Your task to perform on an android device: Open display settings Image 0: 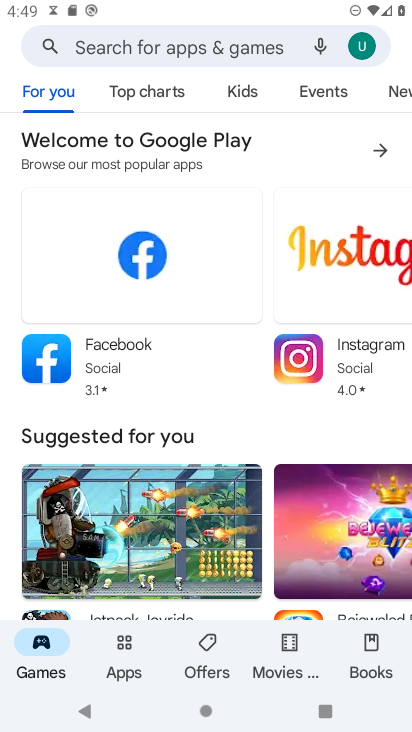
Step 0: press back button
Your task to perform on an android device: Open display settings Image 1: 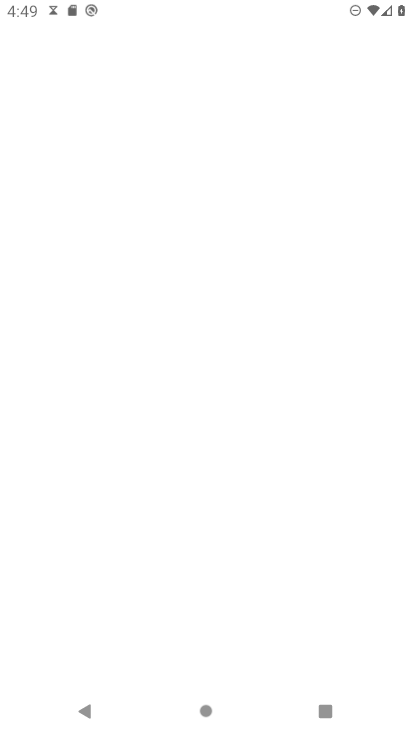
Step 1: press back button
Your task to perform on an android device: Open display settings Image 2: 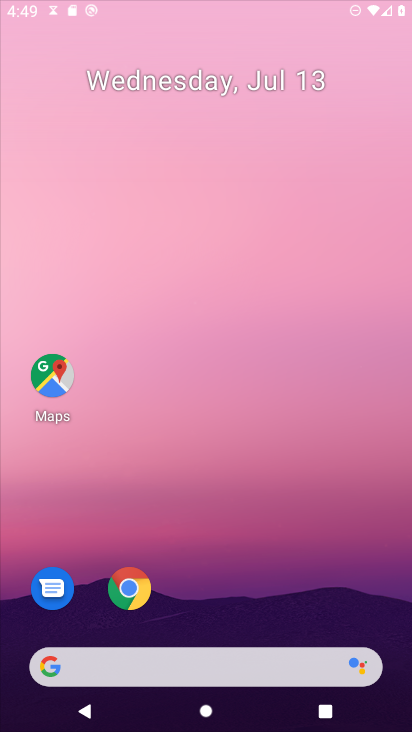
Step 2: press back button
Your task to perform on an android device: Open display settings Image 3: 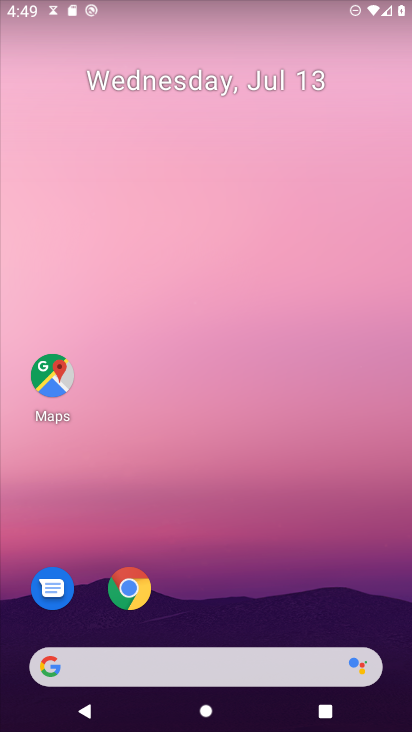
Step 3: click (146, 70)
Your task to perform on an android device: Open display settings Image 4: 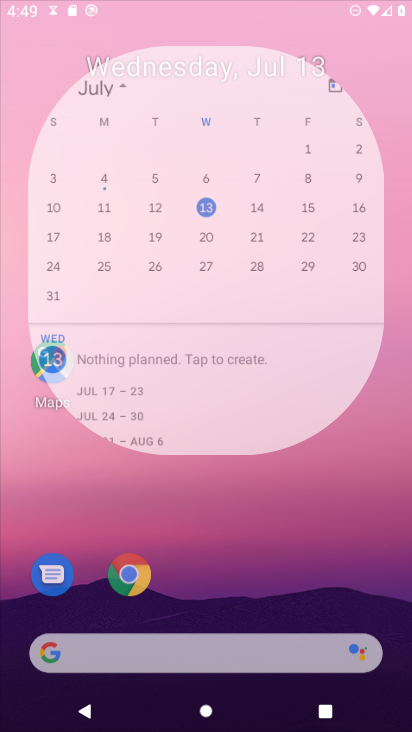
Step 4: drag from (296, 619) to (223, 63)
Your task to perform on an android device: Open display settings Image 5: 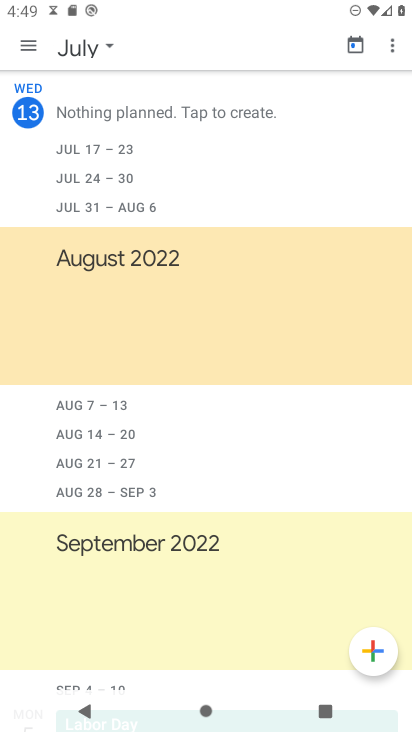
Step 5: click (260, 87)
Your task to perform on an android device: Open display settings Image 6: 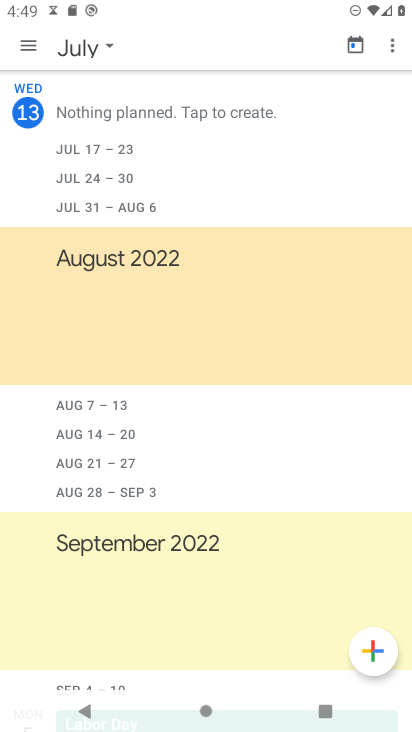
Step 6: press back button
Your task to perform on an android device: Open display settings Image 7: 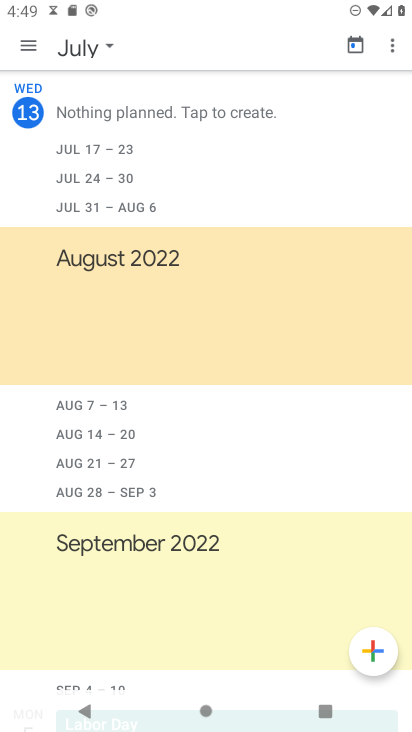
Step 7: press back button
Your task to perform on an android device: Open display settings Image 8: 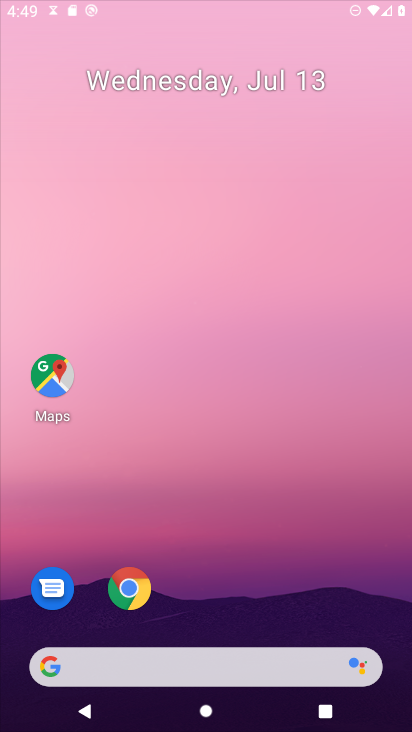
Step 8: press back button
Your task to perform on an android device: Open display settings Image 9: 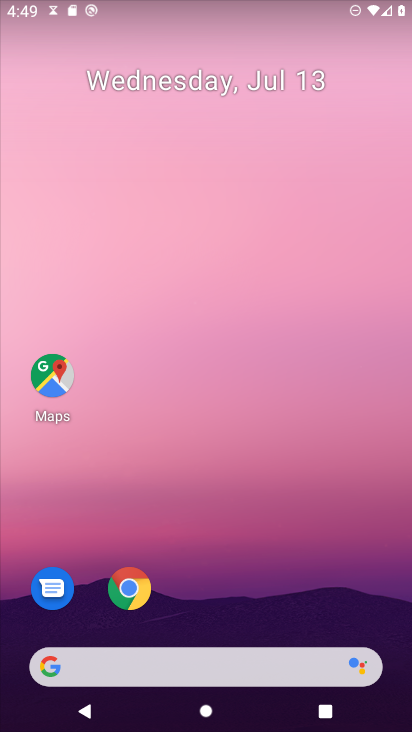
Step 9: drag from (265, 625) to (208, 144)
Your task to perform on an android device: Open display settings Image 10: 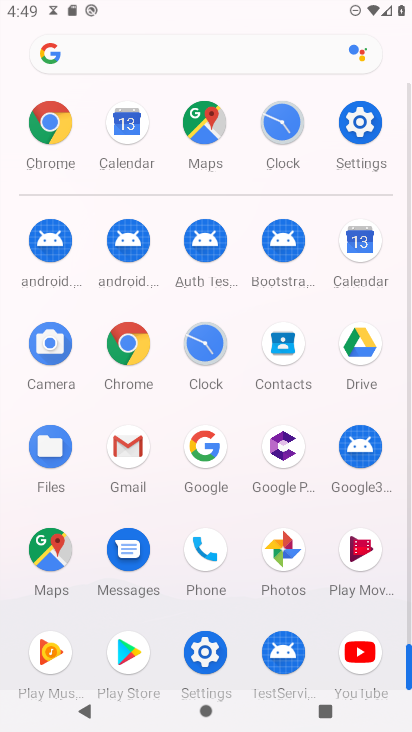
Step 10: click (199, 660)
Your task to perform on an android device: Open display settings Image 11: 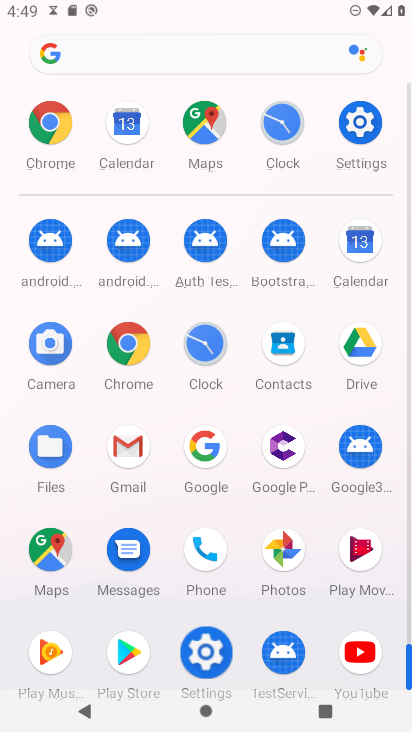
Step 11: click (200, 660)
Your task to perform on an android device: Open display settings Image 12: 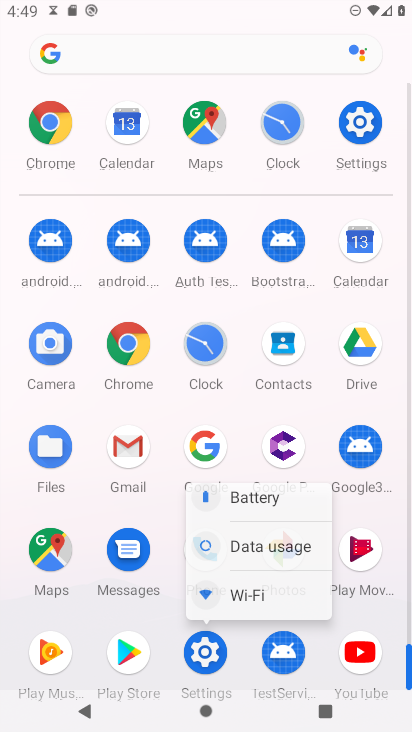
Step 12: click (200, 660)
Your task to perform on an android device: Open display settings Image 13: 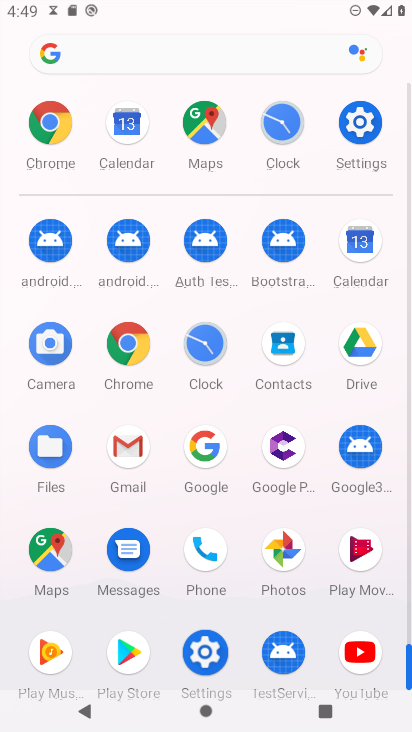
Step 13: click (203, 659)
Your task to perform on an android device: Open display settings Image 14: 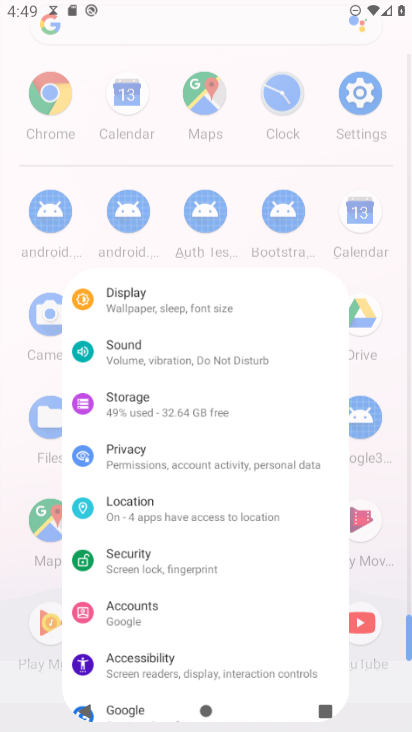
Step 14: click (209, 653)
Your task to perform on an android device: Open display settings Image 15: 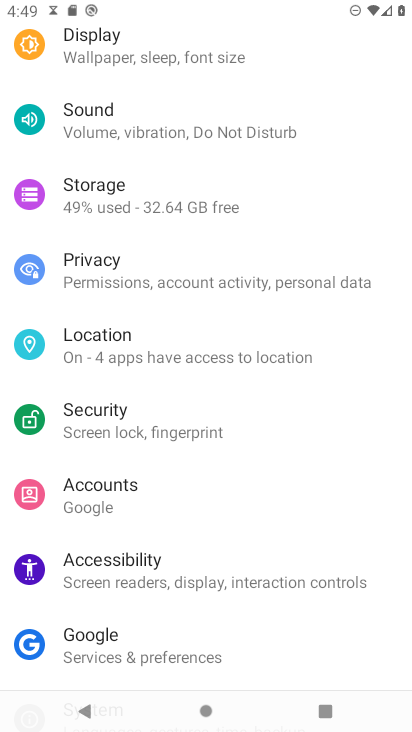
Step 15: click (98, 61)
Your task to perform on an android device: Open display settings Image 16: 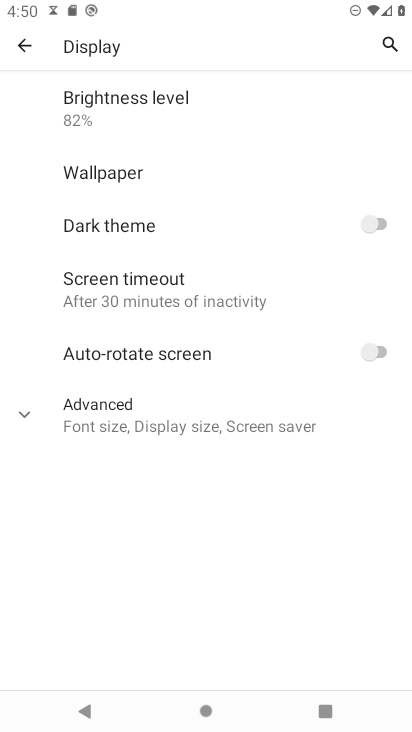
Step 16: task complete